Your task to perform on an android device: set an alarm Image 0: 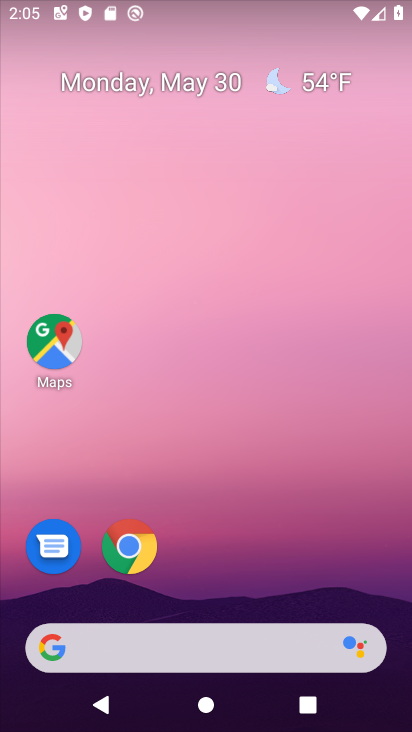
Step 0: drag from (219, 610) to (257, 159)
Your task to perform on an android device: set an alarm Image 1: 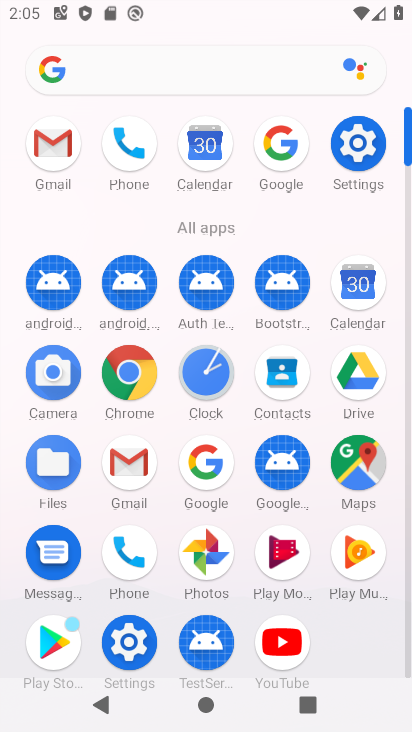
Step 1: click (205, 365)
Your task to perform on an android device: set an alarm Image 2: 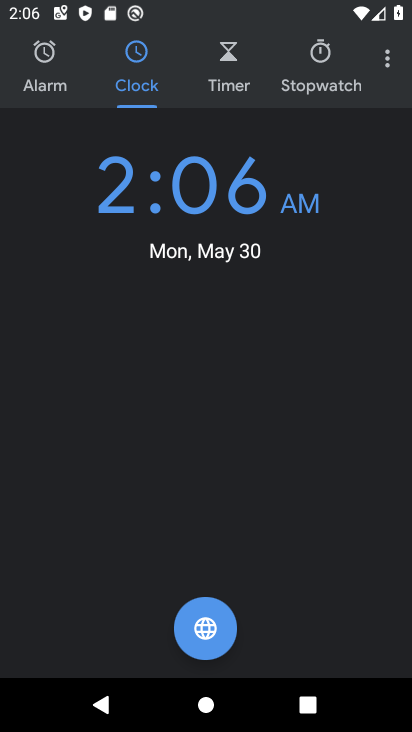
Step 2: click (47, 63)
Your task to perform on an android device: set an alarm Image 3: 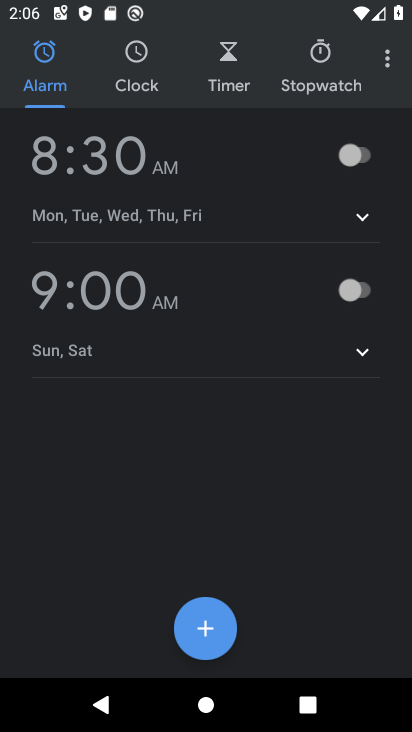
Step 3: click (354, 157)
Your task to perform on an android device: set an alarm Image 4: 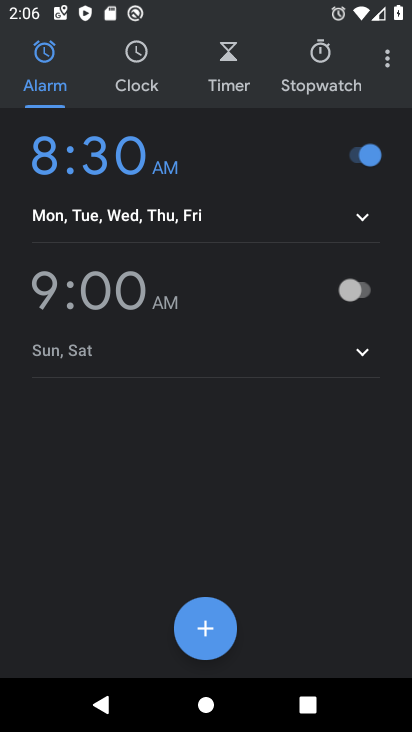
Step 4: task complete